Your task to perform on an android device: Do I have any events today? Image 0: 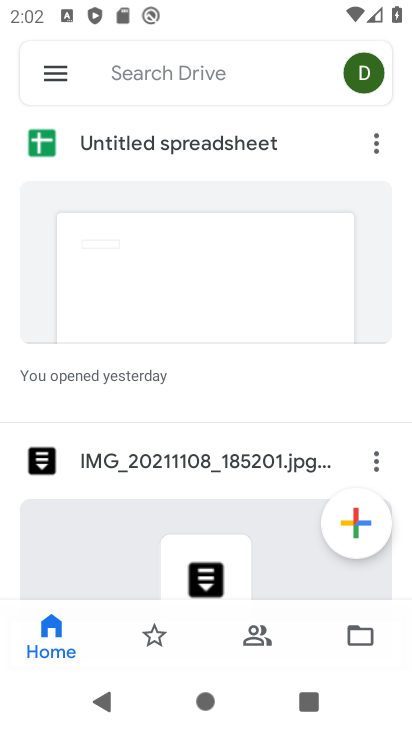
Step 0: press home button
Your task to perform on an android device: Do I have any events today? Image 1: 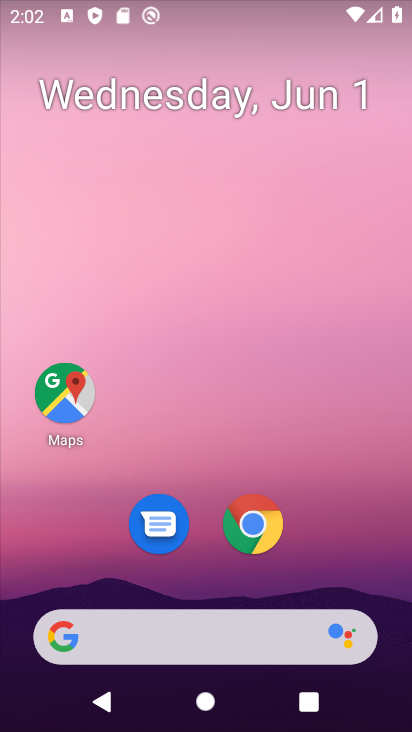
Step 1: drag from (298, 473) to (252, 45)
Your task to perform on an android device: Do I have any events today? Image 2: 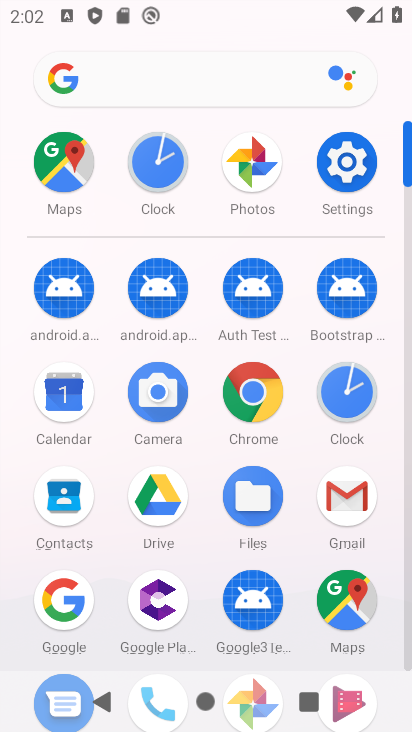
Step 2: click (71, 382)
Your task to perform on an android device: Do I have any events today? Image 3: 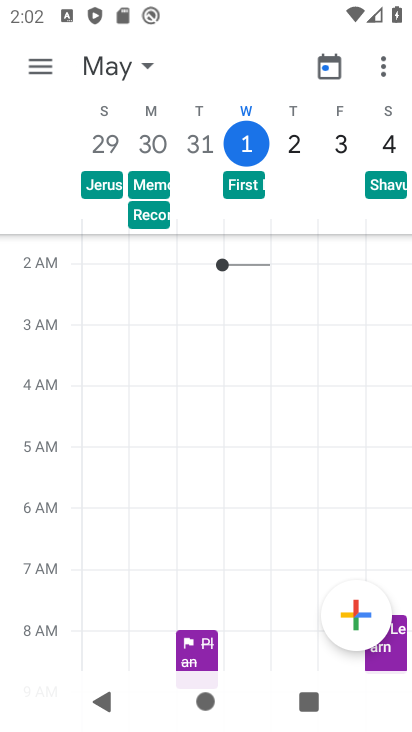
Step 3: click (244, 136)
Your task to perform on an android device: Do I have any events today? Image 4: 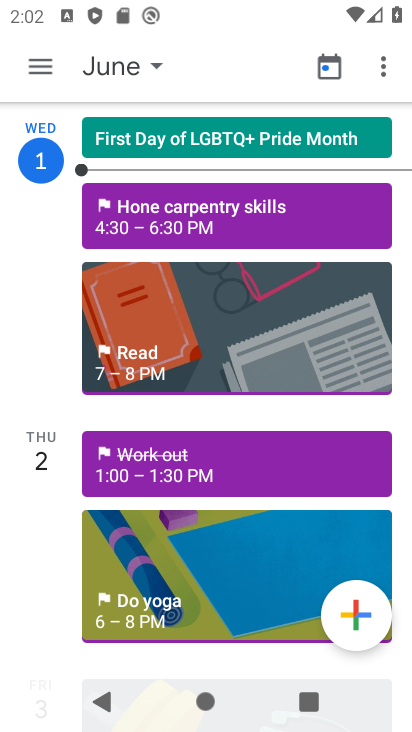
Step 4: task complete